Your task to perform on an android device: Open privacy settings Image 0: 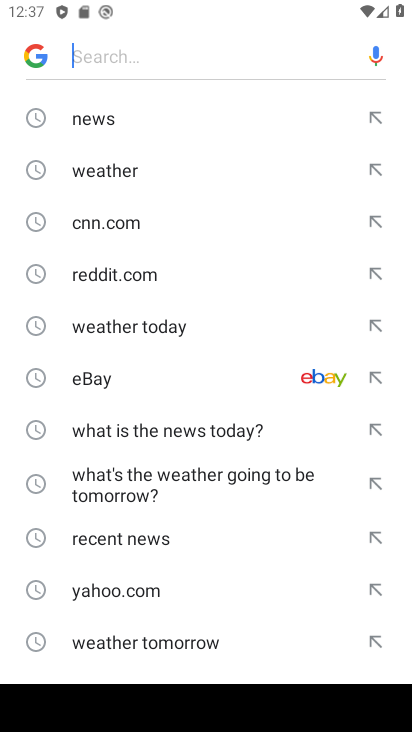
Step 0: press home button
Your task to perform on an android device: Open privacy settings Image 1: 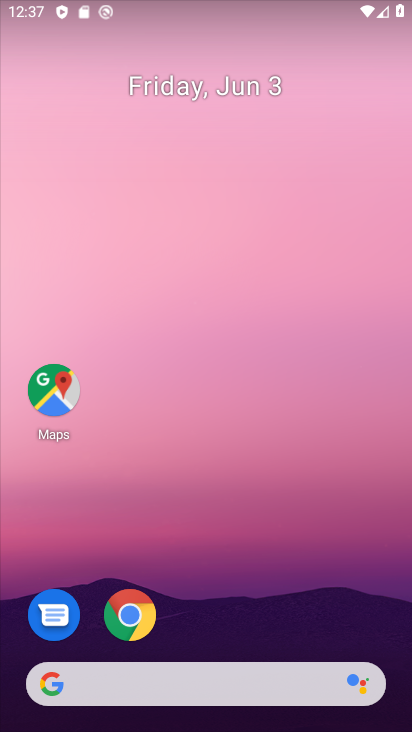
Step 1: drag from (36, 718) to (229, 42)
Your task to perform on an android device: Open privacy settings Image 2: 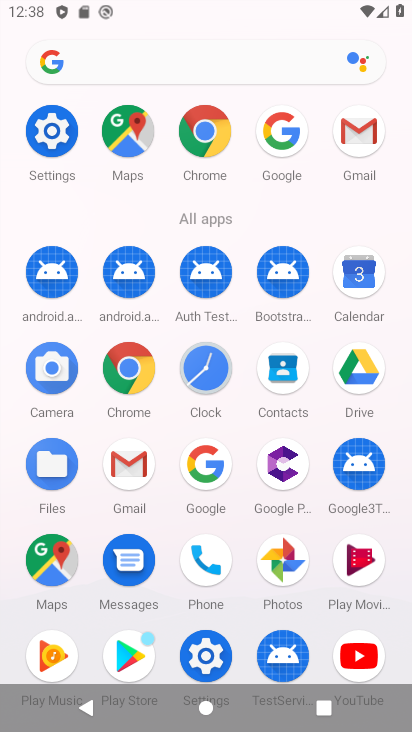
Step 2: click (43, 147)
Your task to perform on an android device: Open privacy settings Image 3: 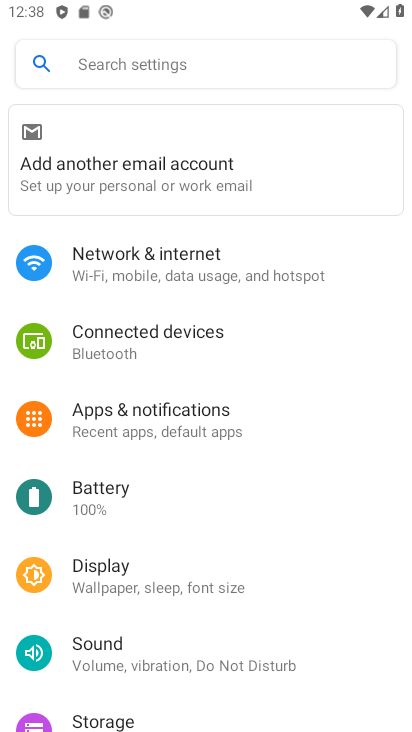
Step 3: drag from (191, 677) to (218, 88)
Your task to perform on an android device: Open privacy settings Image 4: 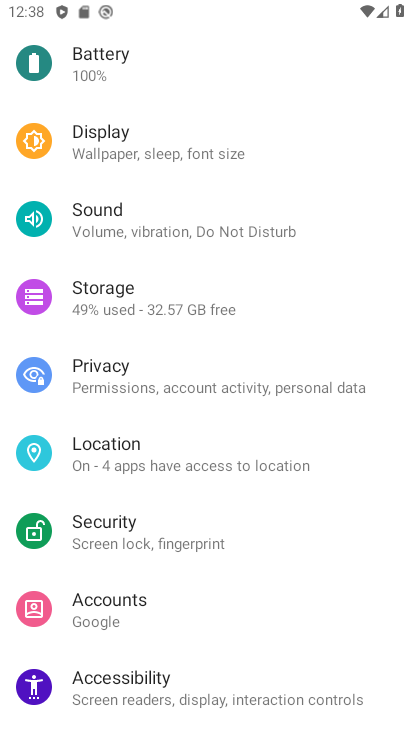
Step 4: click (197, 387)
Your task to perform on an android device: Open privacy settings Image 5: 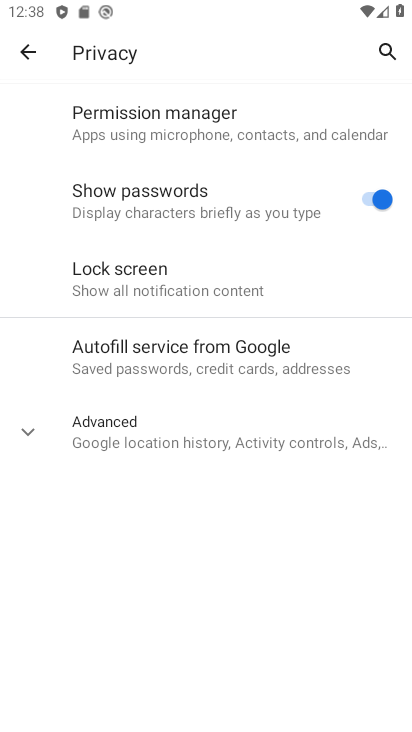
Step 5: task complete